Your task to perform on an android device: remove spam from my inbox in the gmail app Image 0: 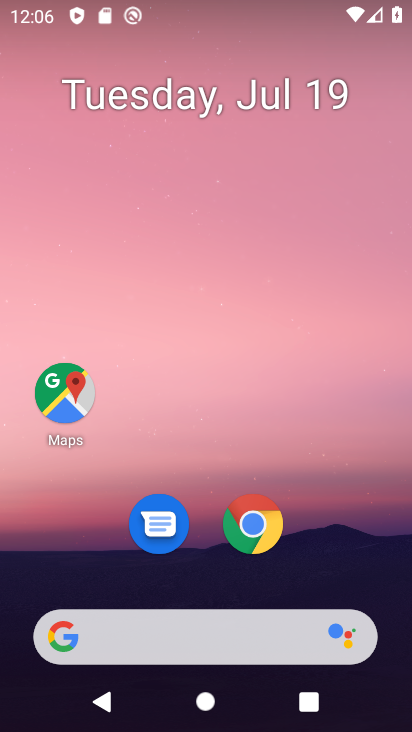
Step 0: press home button
Your task to perform on an android device: remove spam from my inbox in the gmail app Image 1: 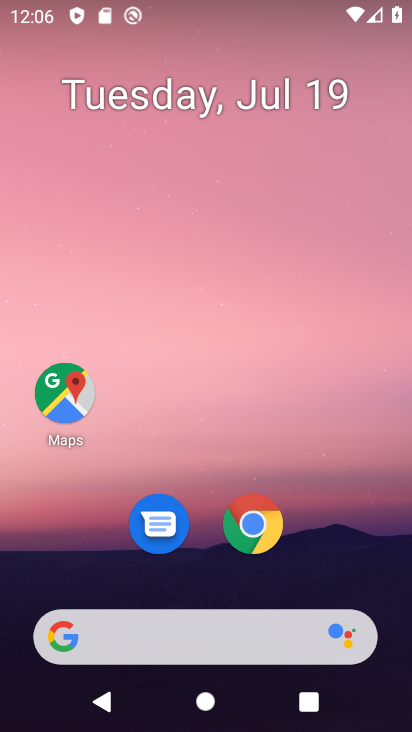
Step 1: drag from (208, 356) to (235, 100)
Your task to perform on an android device: remove spam from my inbox in the gmail app Image 2: 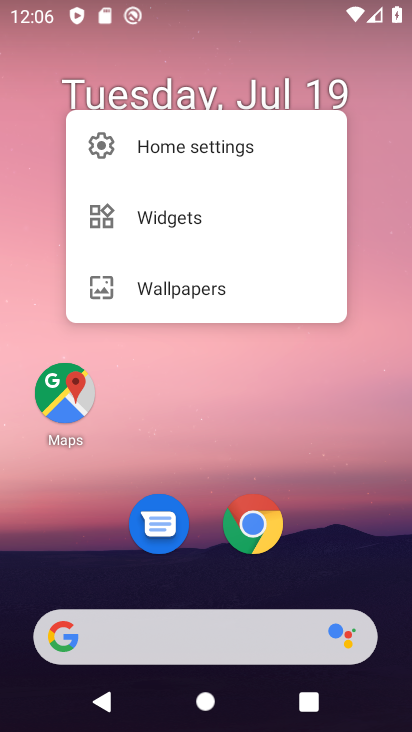
Step 2: drag from (225, 488) to (321, 44)
Your task to perform on an android device: remove spam from my inbox in the gmail app Image 3: 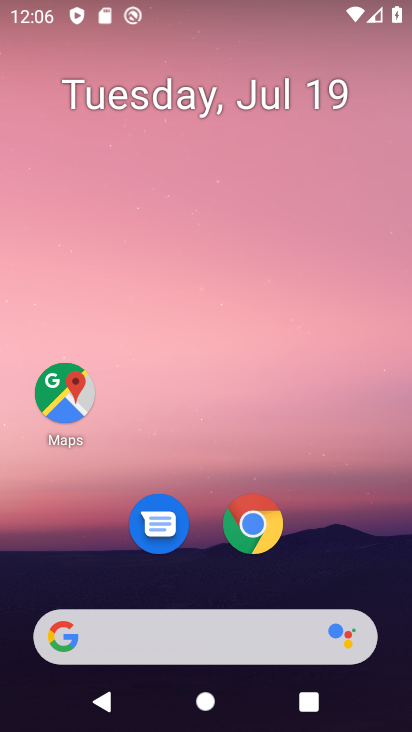
Step 3: drag from (253, 521) to (300, 34)
Your task to perform on an android device: remove spam from my inbox in the gmail app Image 4: 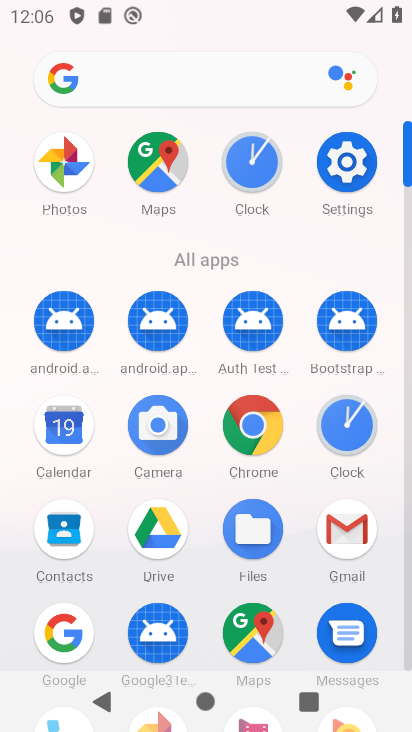
Step 4: click (345, 535)
Your task to perform on an android device: remove spam from my inbox in the gmail app Image 5: 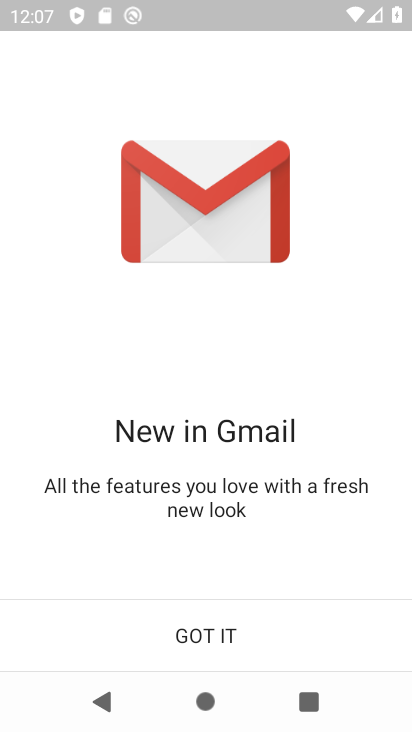
Step 5: click (198, 627)
Your task to perform on an android device: remove spam from my inbox in the gmail app Image 6: 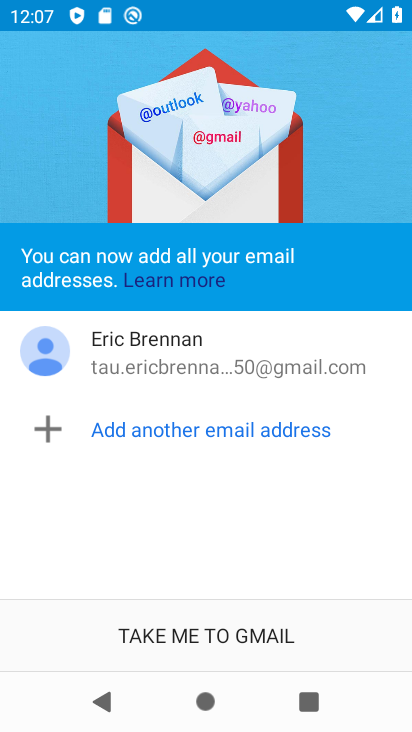
Step 6: click (222, 633)
Your task to perform on an android device: remove spam from my inbox in the gmail app Image 7: 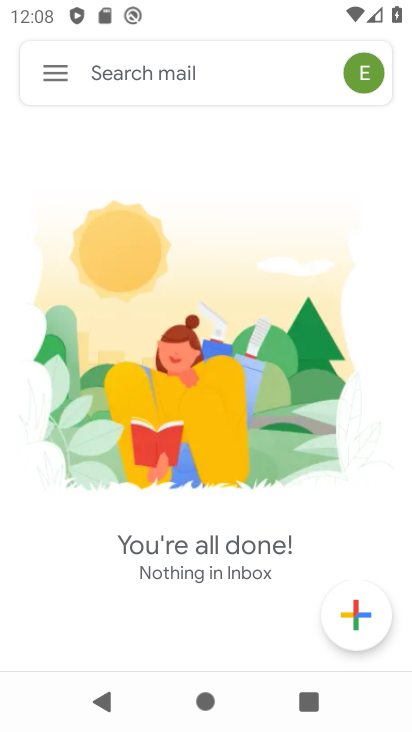
Step 7: click (56, 71)
Your task to perform on an android device: remove spam from my inbox in the gmail app Image 8: 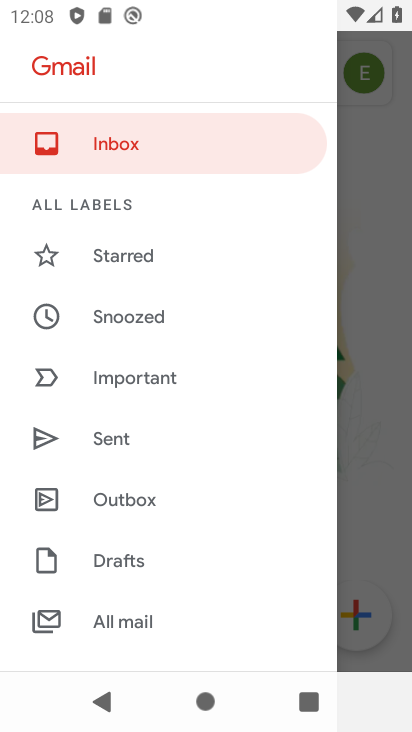
Step 8: drag from (182, 439) to (190, 119)
Your task to perform on an android device: remove spam from my inbox in the gmail app Image 9: 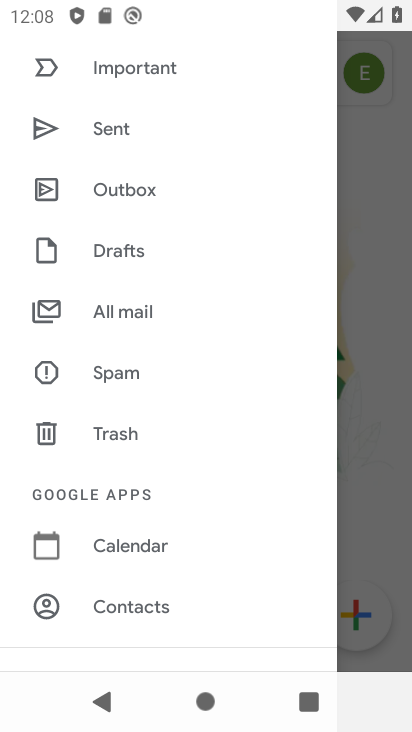
Step 9: click (112, 373)
Your task to perform on an android device: remove spam from my inbox in the gmail app Image 10: 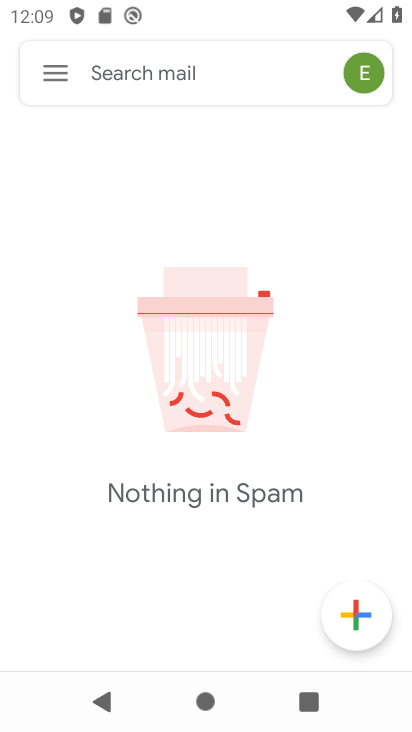
Step 10: task complete